Your task to perform on an android device: open app "Chime – Mobile Banking" (install if not already installed) Image 0: 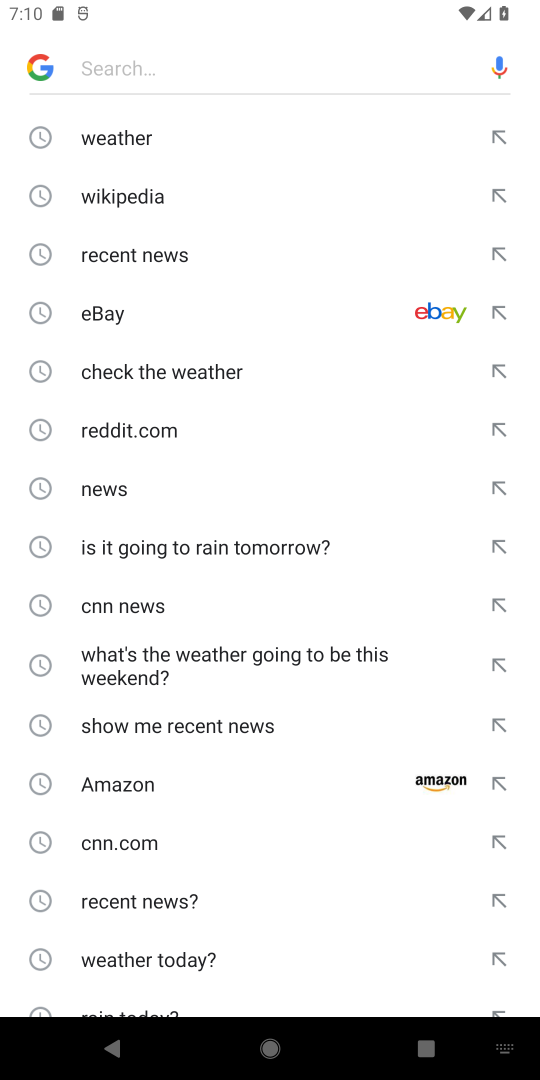
Step 0: press home button
Your task to perform on an android device: open app "Chime – Mobile Banking" (install if not already installed) Image 1: 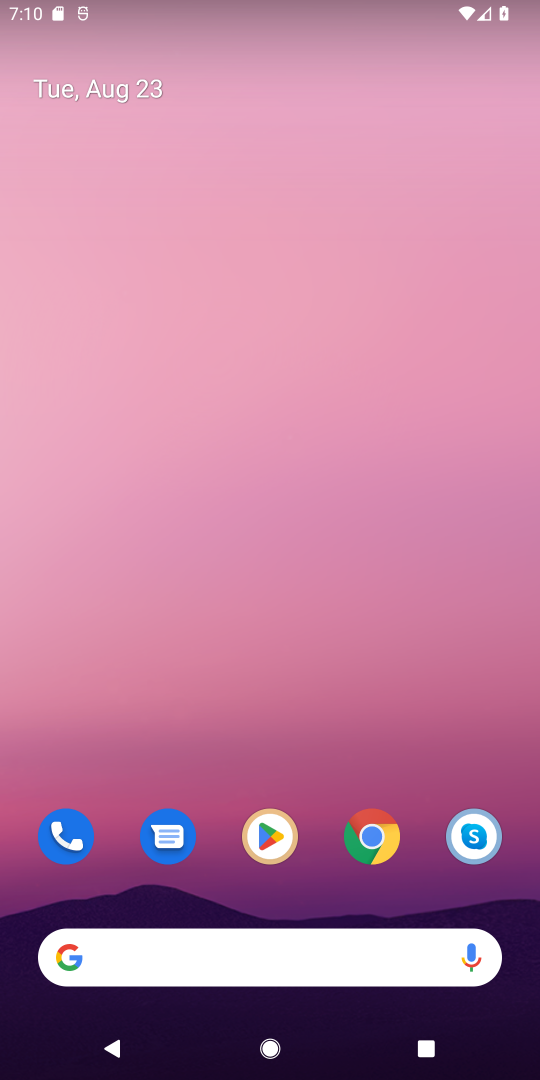
Step 1: click (273, 829)
Your task to perform on an android device: open app "Chime – Mobile Banking" (install if not already installed) Image 2: 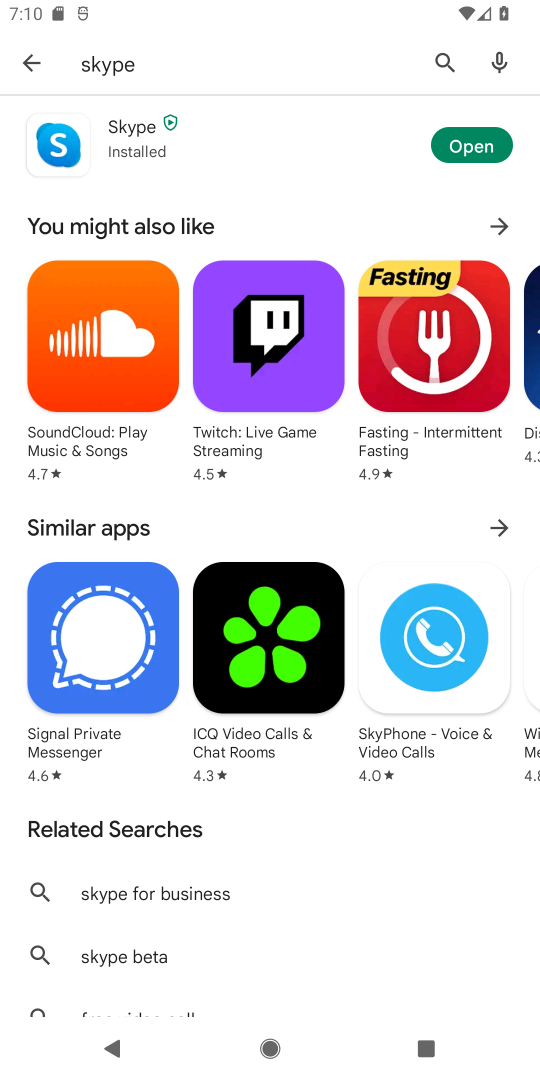
Step 2: click (446, 54)
Your task to perform on an android device: open app "Chime – Mobile Banking" (install if not already installed) Image 3: 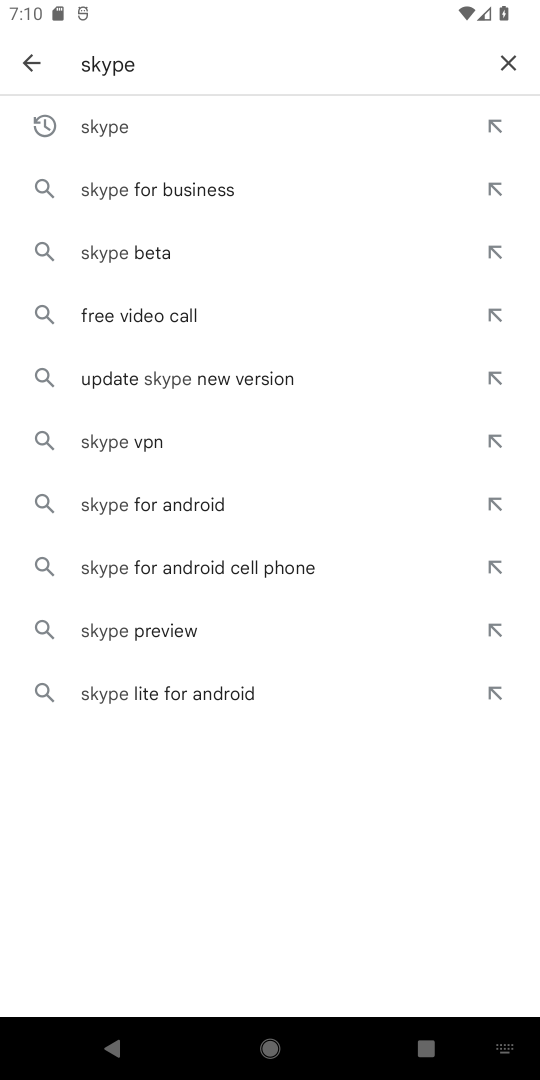
Step 3: click (524, 37)
Your task to perform on an android device: open app "Chime – Mobile Banking" (install if not already installed) Image 4: 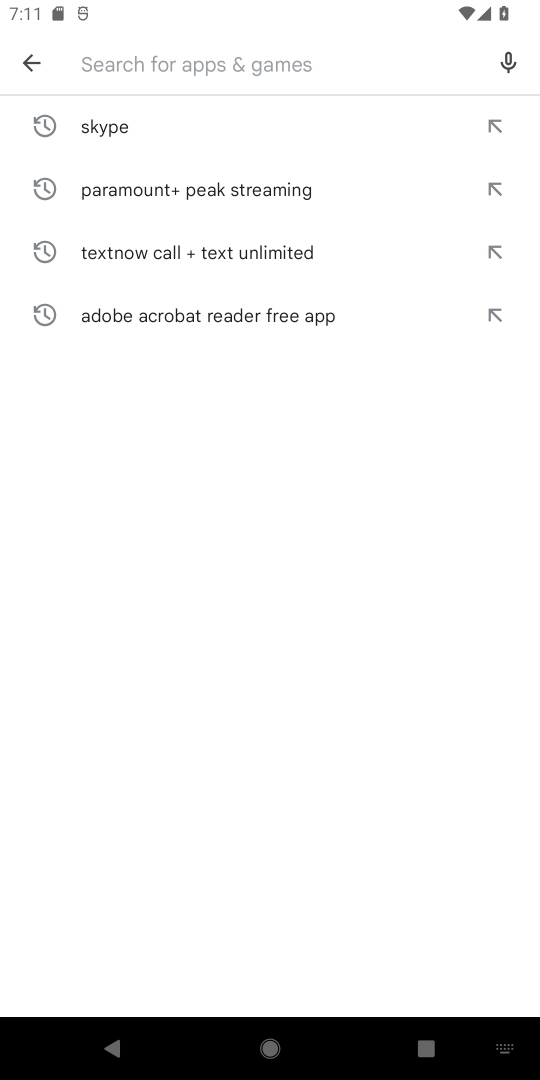
Step 4: type "Chime Mobile Banking"
Your task to perform on an android device: open app "Chime – Mobile Banking" (install if not already installed) Image 5: 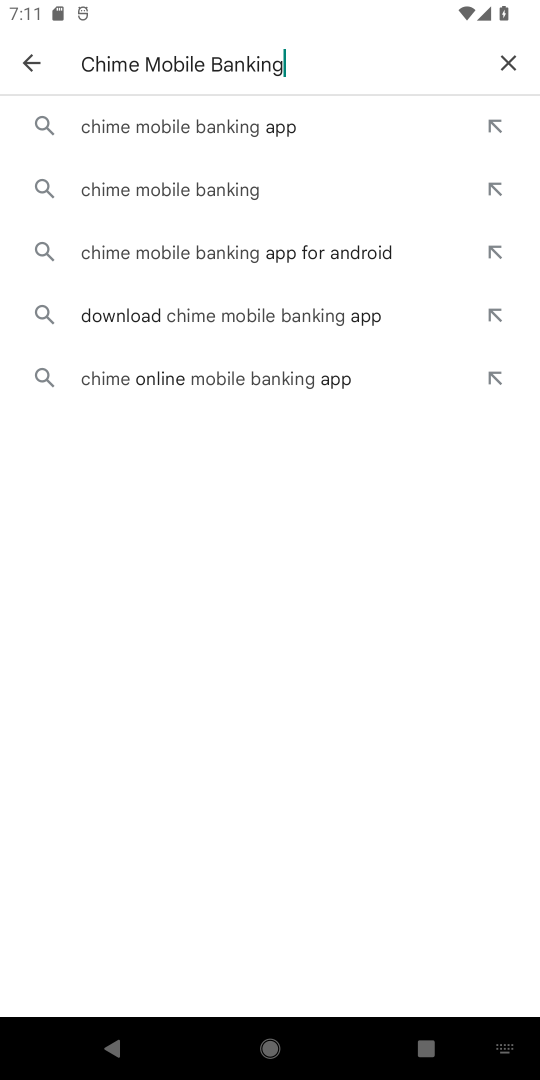
Step 5: click (216, 128)
Your task to perform on an android device: open app "Chime – Mobile Banking" (install if not already installed) Image 6: 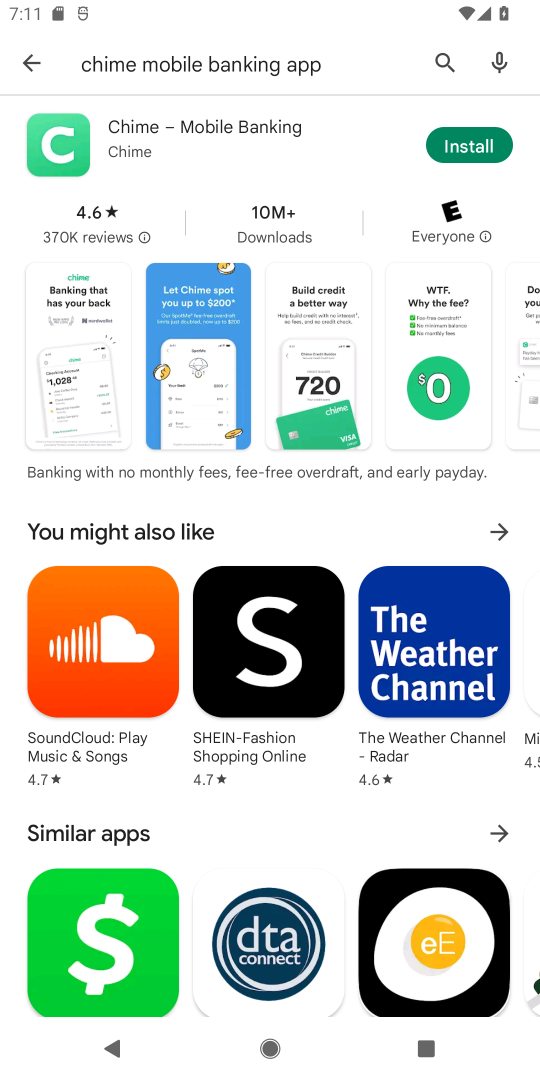
Step 6: click (487, 148)
Your task to perform on an android device: open app "Chime – Mobile Banking" (install if not already installed) Image 7: 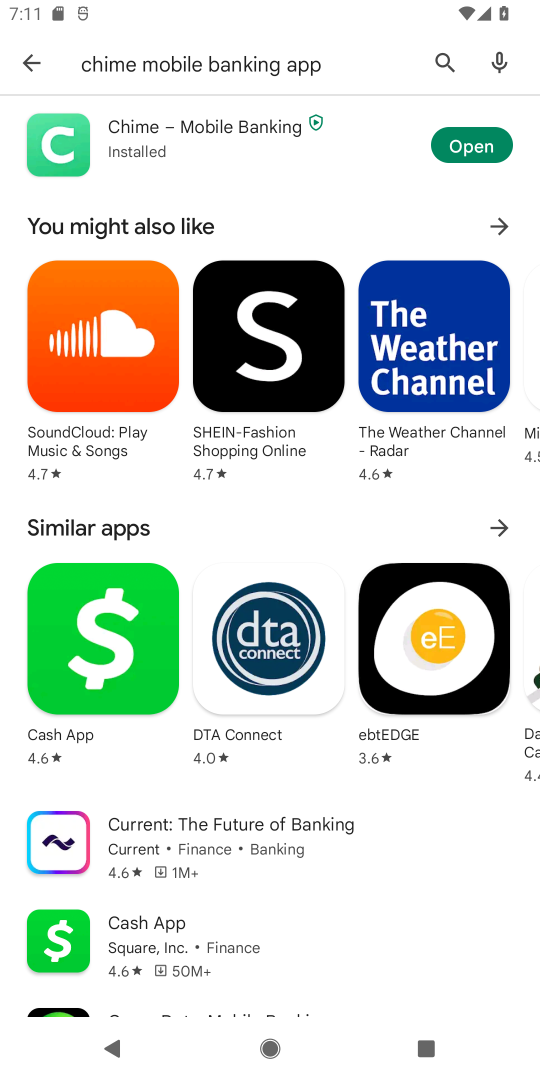
Step 7: click (455, 146)
Your task to perform on an android device: open app "Chime – Mobile Banking" (install if not already installed) Image 8: 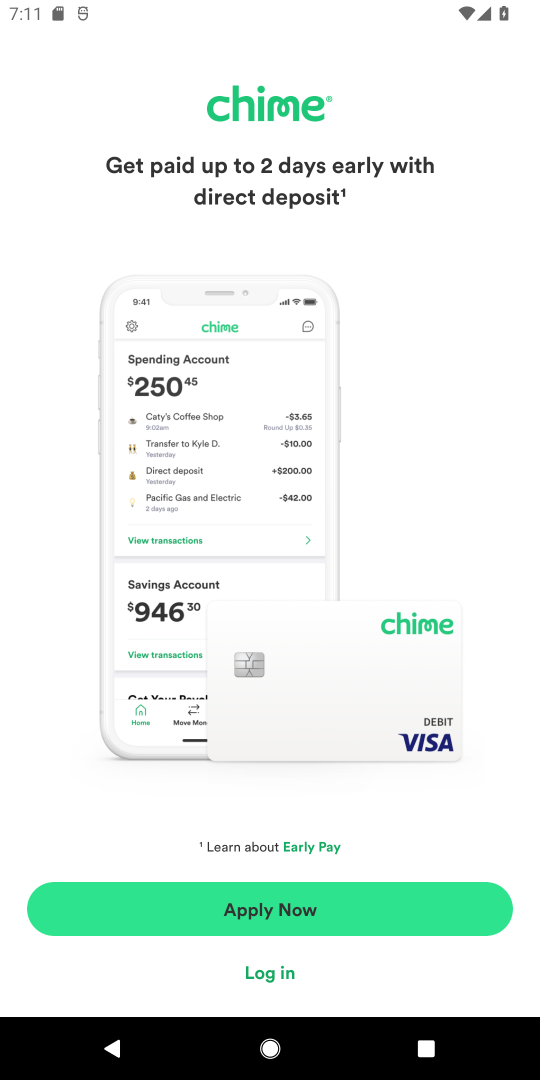
Step 8: task complete